Your task to perform on an android device: Search for "razer thresher" on ebay.com, select the first entry, and add it to the cart. Image 0: 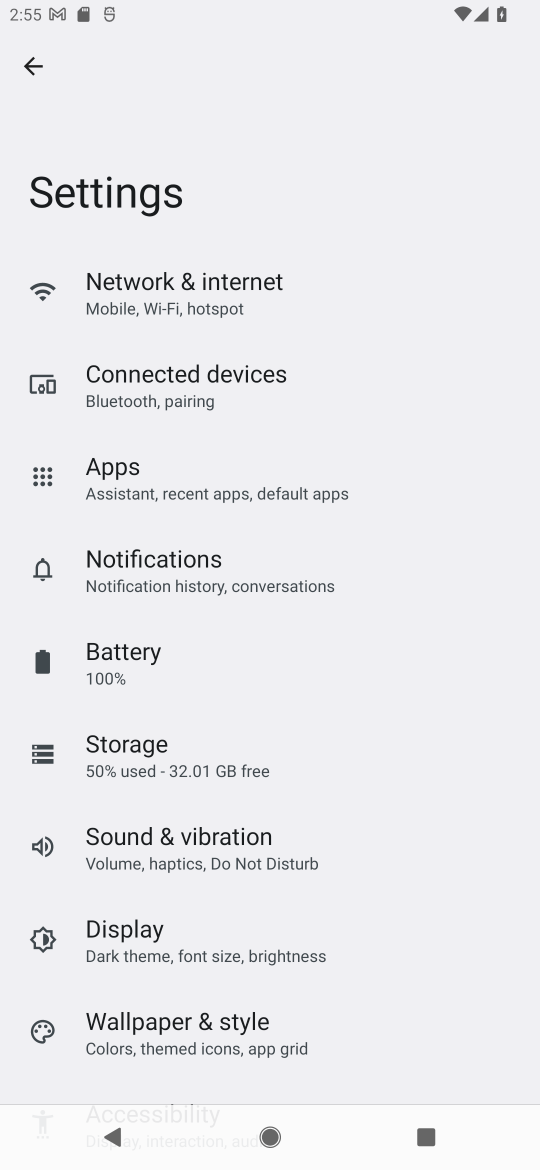
Step 0: press home button
Your task to perform on an android device: Search for "razer thresher" on ebay.com, select the first entry, and add it to the cart. Image 1: 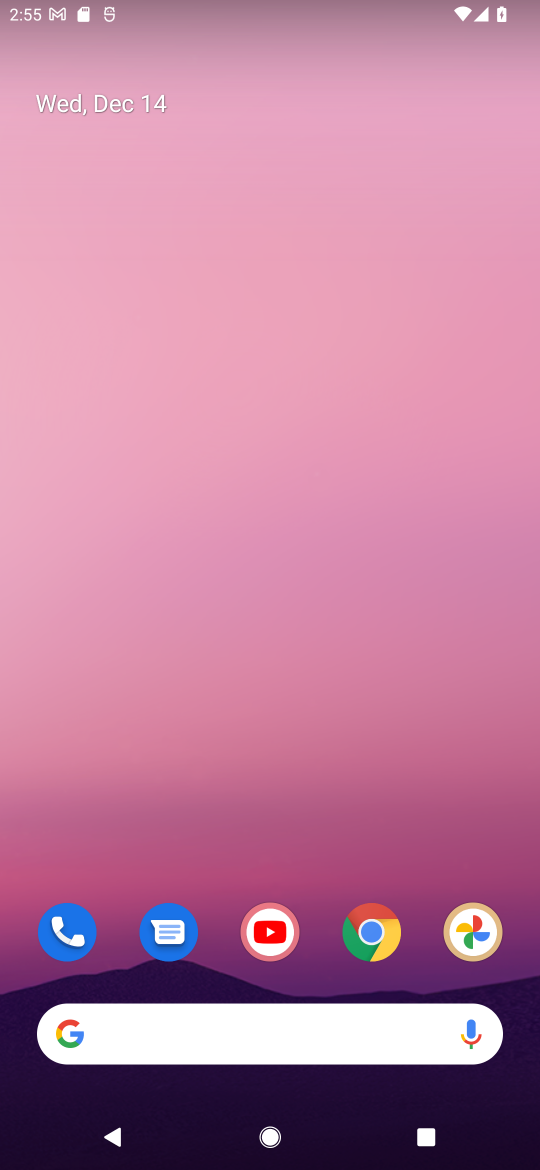
Step 1: click (262, 1023)
Your task to perform on an android device: Search for "razer thresher" on ebay.com, select the first entry, and add it to the cart. Image 2: 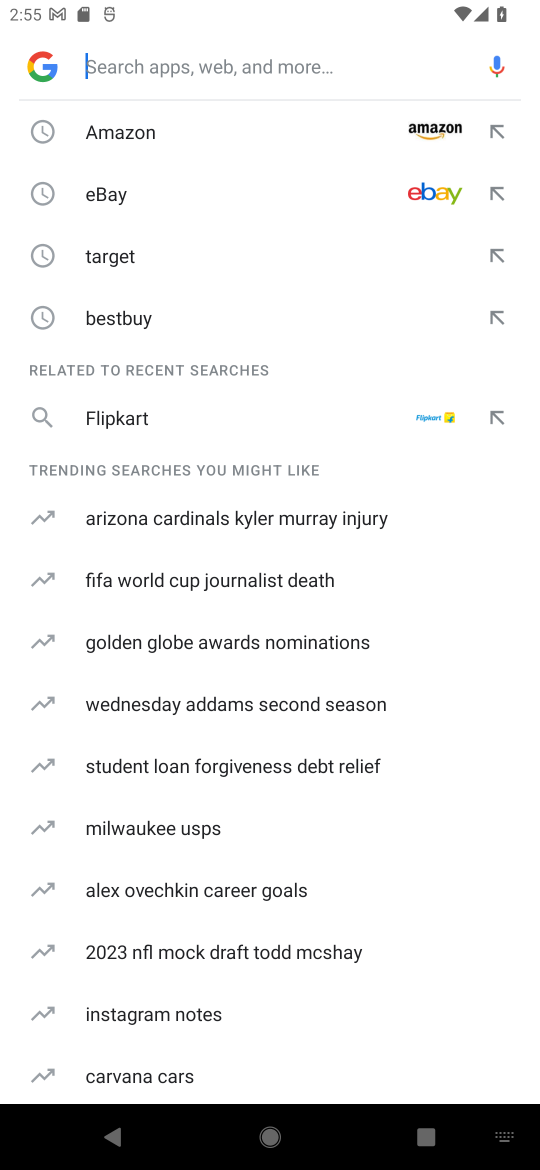
Step 2: click (131, 189)
Your task to perform on an android device: Search for "razer thresher" on ebay.com, select the first entry, and add it to the cart. Image 3: 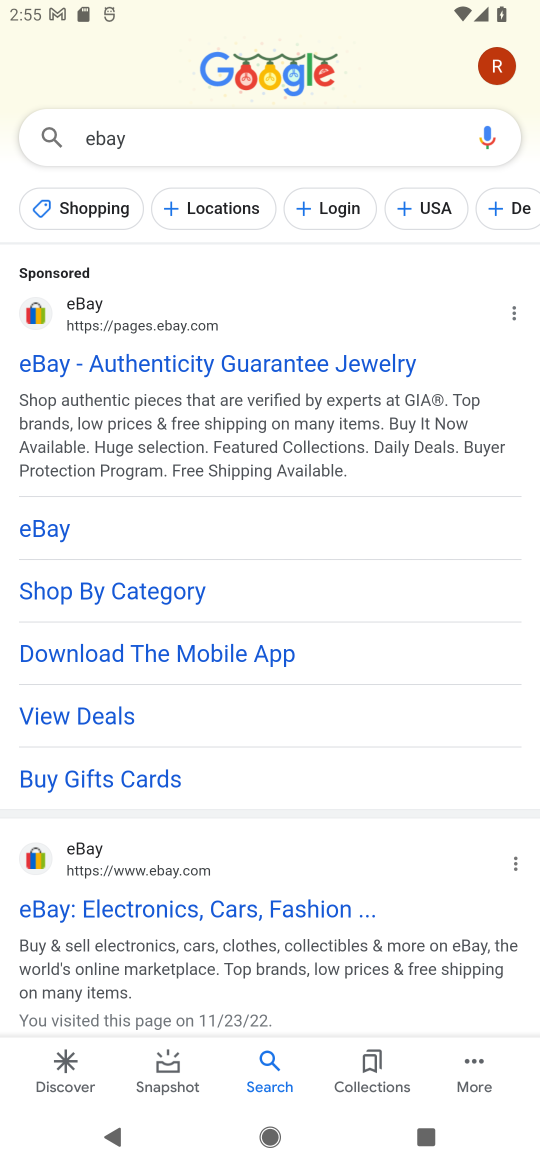
Step 3: click (76, 302)
Your task to perform on an android device: Search for "razer thresher" on ebay.com, select the first entry, and add it to the cart. Image 4: 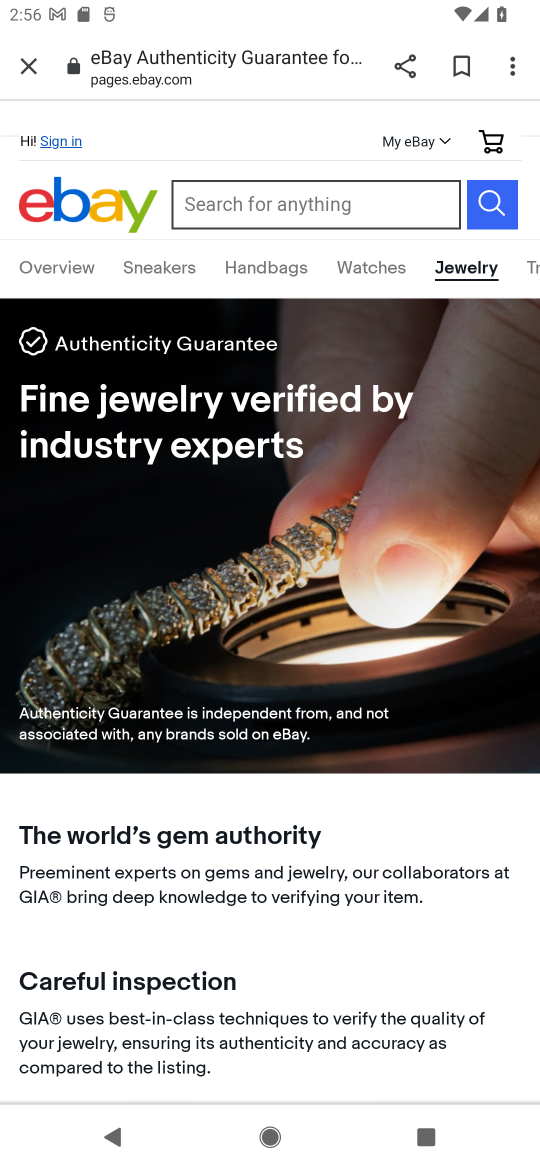
Step 4: click (287, 197)
Your task to perform on an android device: Search for "razer thresher" on ebay.com, select the first entry, and add it to the cart. Image 5: 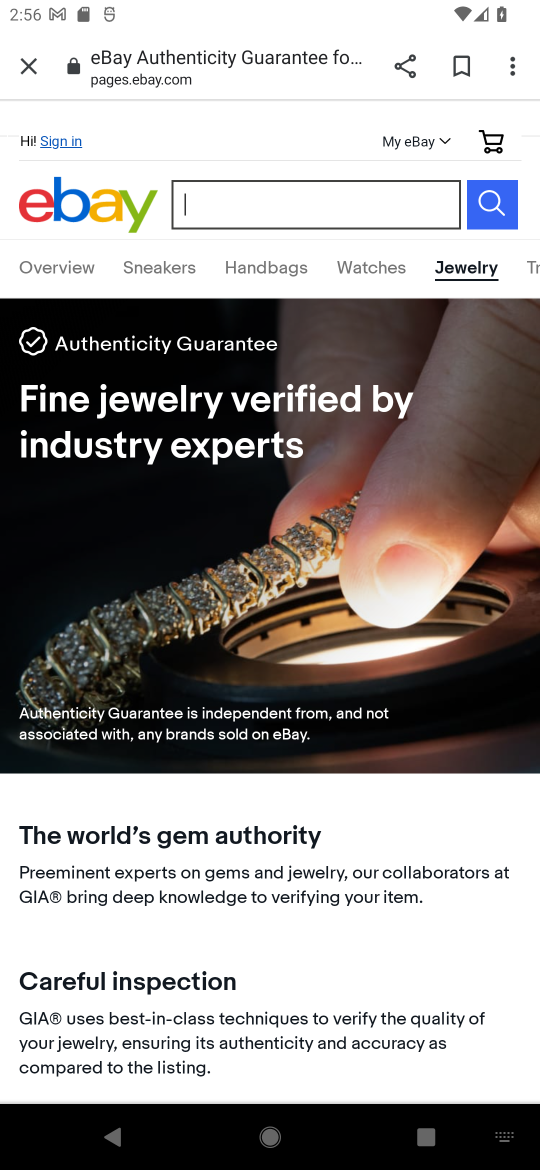
Step 5: type "razer thresher"
Your task to perform on an android device: Search for "razer thresher" on ebay.com, select the first entry, and add it to the cart. Image 6: 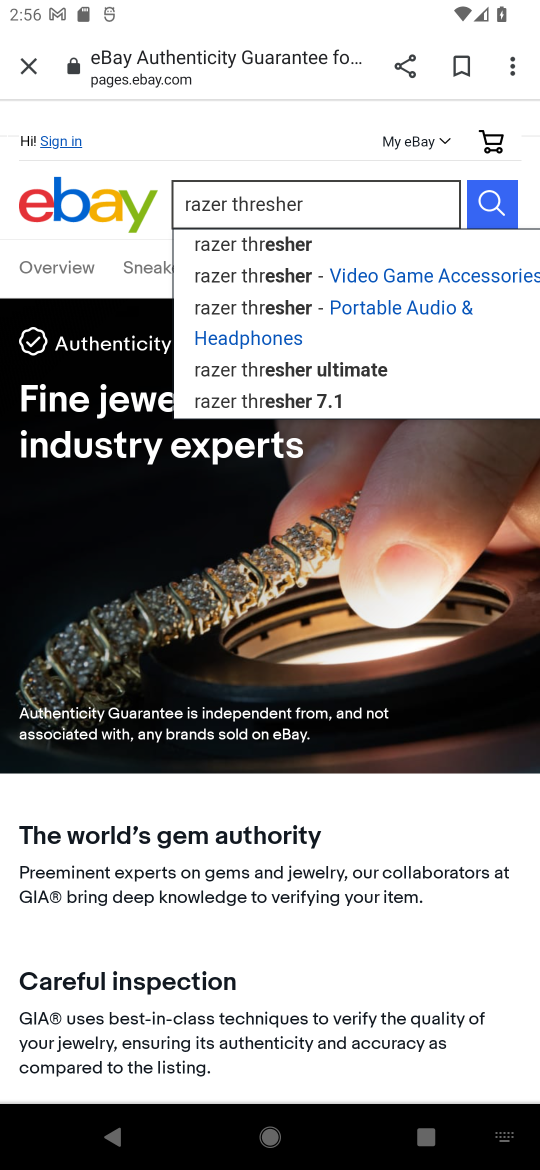
Step 6: click (284, 253)
Your task to perform on an android device: Search for "razer thresher" on ebay.com, select the first entry, and add it to the cart. Image 7: 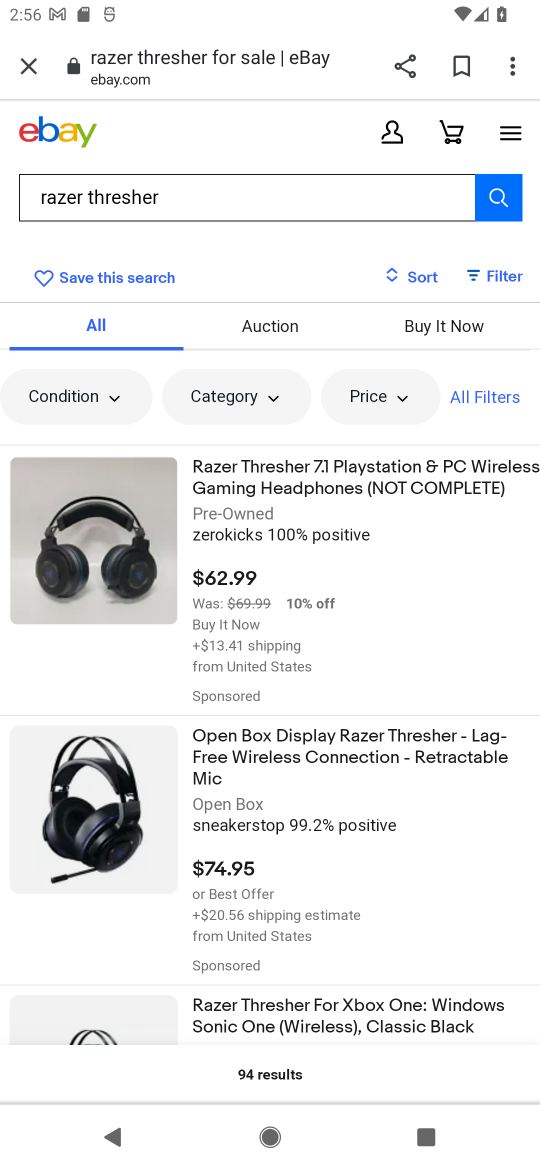
Step 7: click (242, 490)
Your task to perform on an android device: Search for "razer thresher" on ebay.com, select the first entry, and add it to the cart. Image 8: 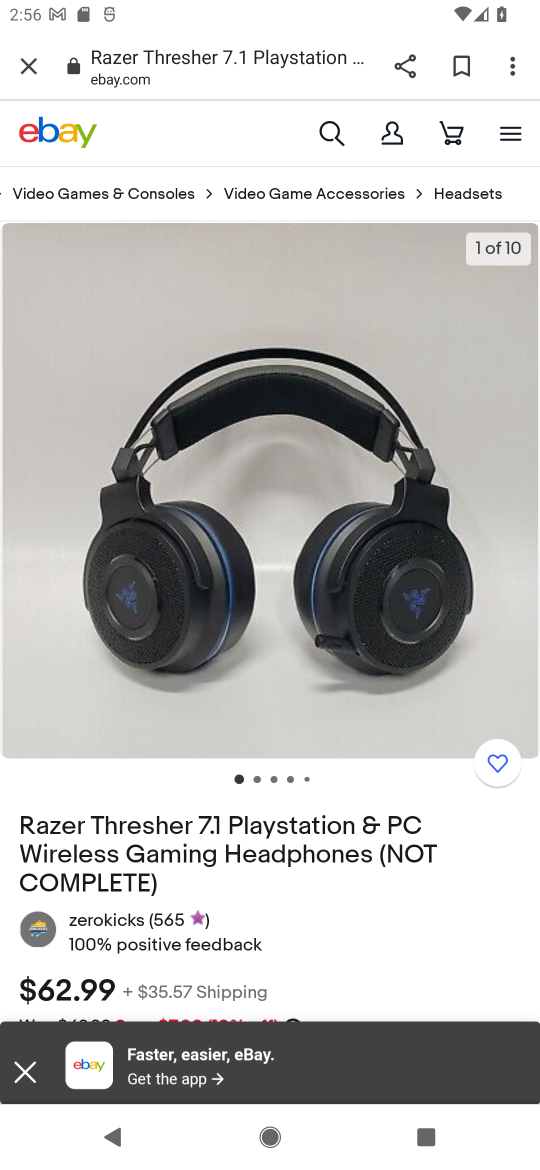
Step 8: click (272, 536)
Your task to perform on an android device: Search for "razer thresher" on ebay.com, select the first entry, and add it to the cart. Image 9: 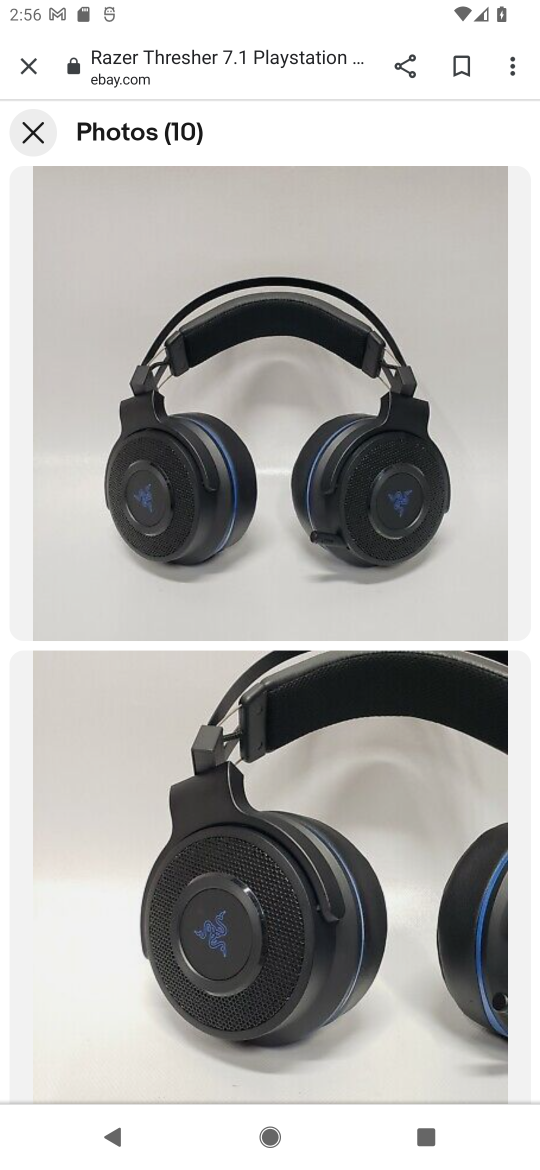
Step 9: click (32, 128)
Your task to perform on an android device: Search for "razer thresher" on ebay.com, select the first entry, and add it to the cart. Image 10: 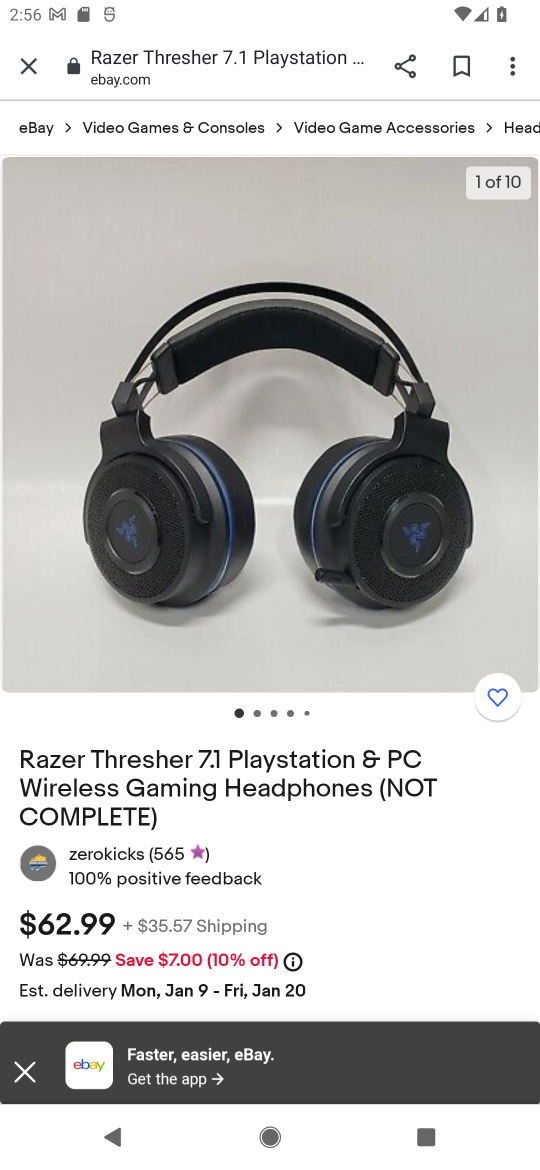
Step 10: drag from (454, 810) to (360, 549)
Your task to perform on an android device: Search for "razer thresher" on ebay.com, select the first entry, and add it to the cart. Image 11: 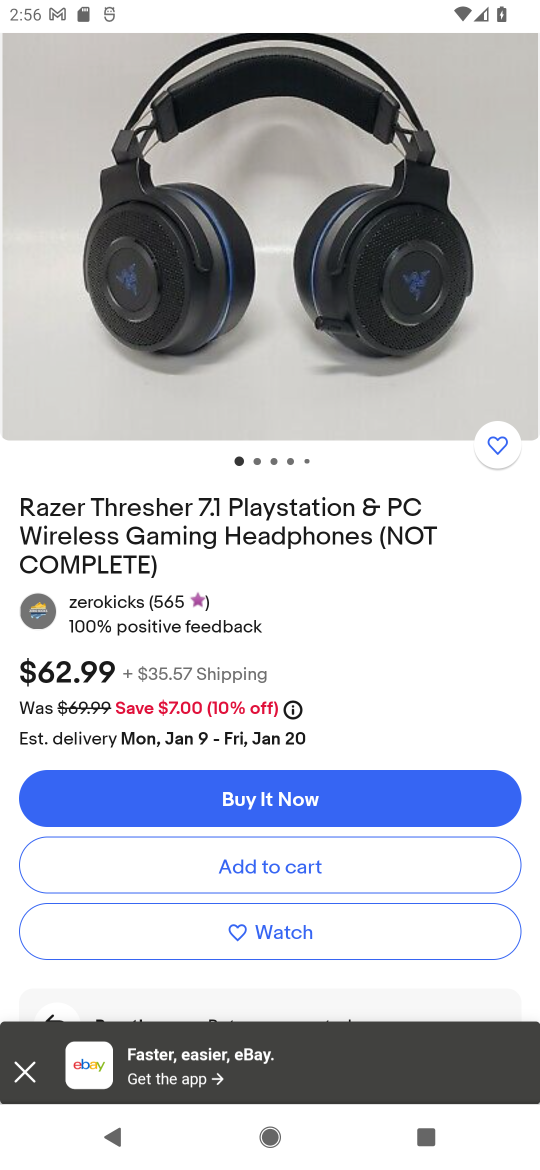
Step 11: click (255, 866)
Your task to perform on an android device: Search for "razer thresher" on ebay.com, select the first entry, and add it to the cart. Image 12: 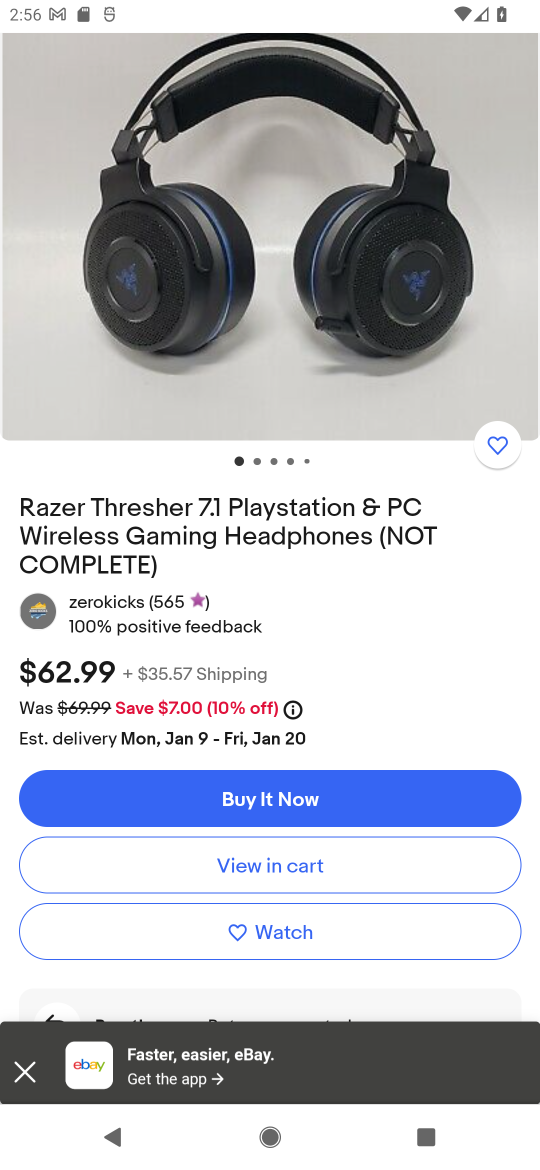
Step 12: task complete